Your task to perform on an android device: set an alarm Image 0: 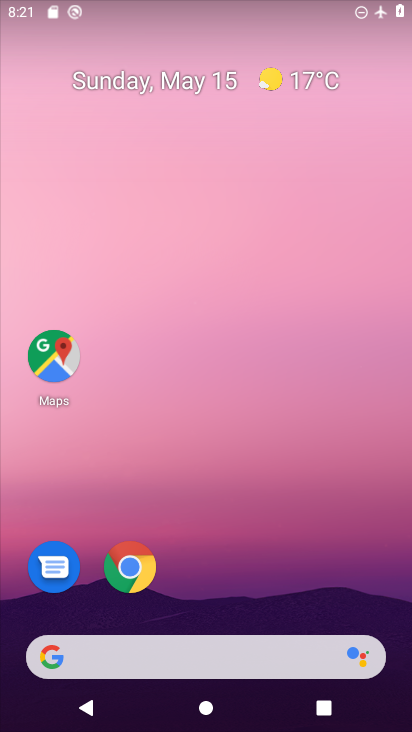
Step 0: drag from (86, 618) to (149, 108)
Your task to perform on an android device: set an alarm Image 1: 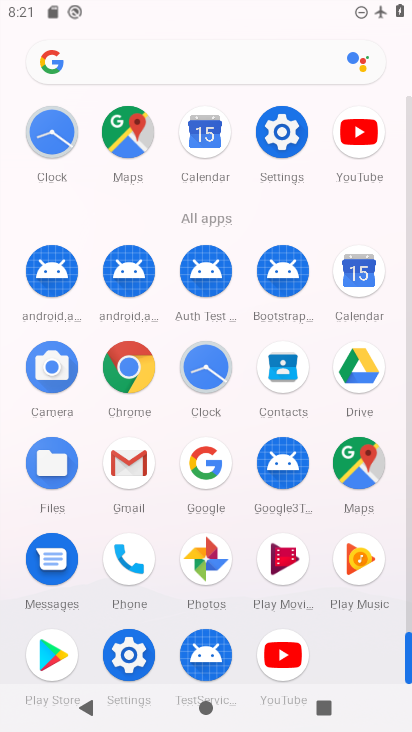
Step 1: click (188, 375)
Your task to perform on an android device: set an alarm Image 2: 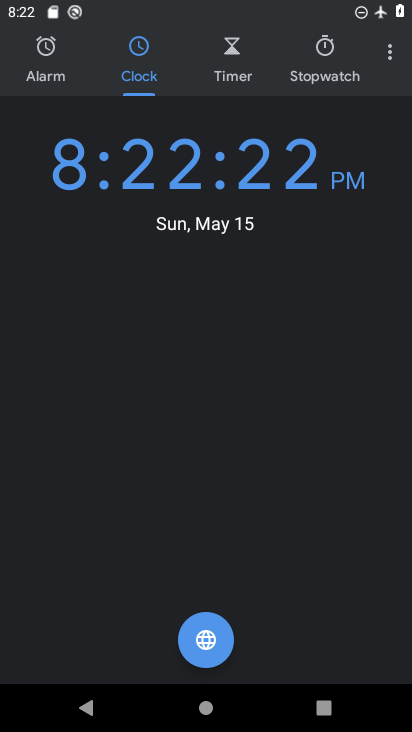
Step 2: click (51, 69)
Your task to perform on an android device: set an alarm Image 3: 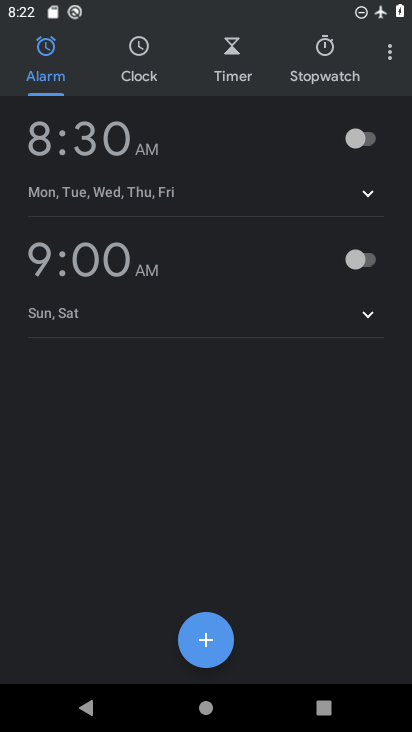
Step 3: click (365, 133)
Your task to perform on an android device: set an alarm Image 4: 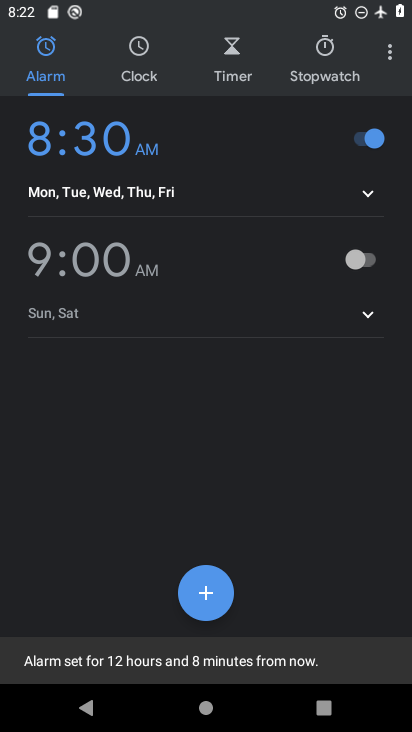
Step 4: task complete